Your task to perform on an android device: turn on data saver in the chrome app Image 0: 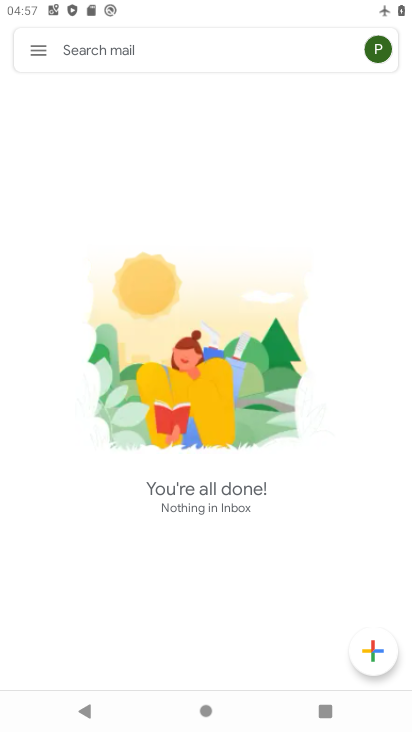
Step 0: press home button
Your task to perform on an android device: turn on data saver in the chrome app Image 1: 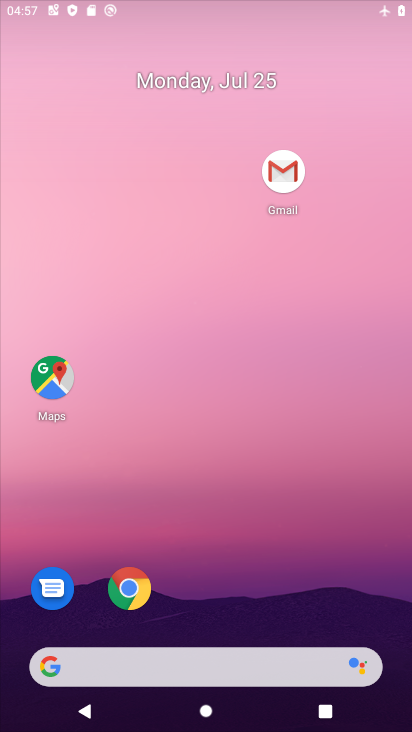
Step 1: drag from (318, 592) to (297, 149)
Your task to perform on an android device: turn on data saver in the chrome app Image 2: 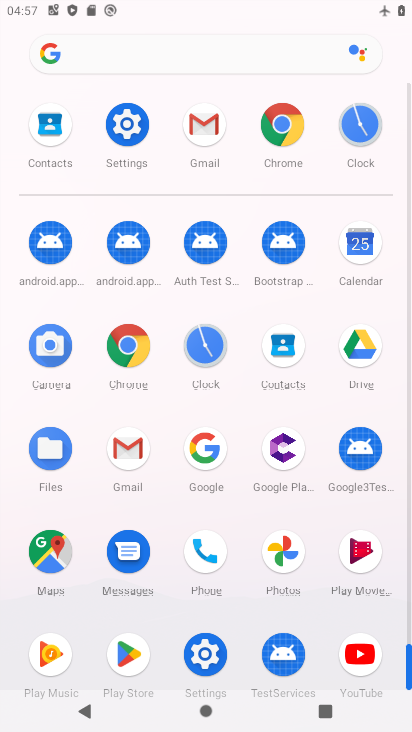
Step 2: click (283, 124)
Your task to perform on an android device: turn on data saver in the chrome app Image 3: 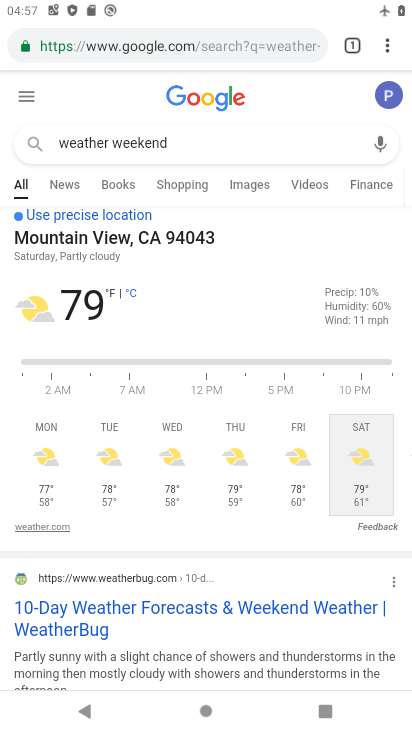
Step 3: drag from (393, 43) to (223, 510)
Your task to perform on an android device: turn on data saver in the chrome app Image 4: 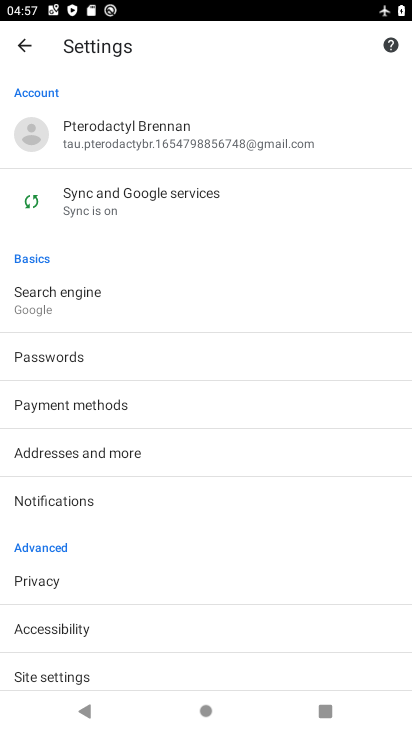
Step 4: drag from (226, 560) to (315, 87)
Your task to perform on an android device: turn on data saver in the chrome app Image 5: 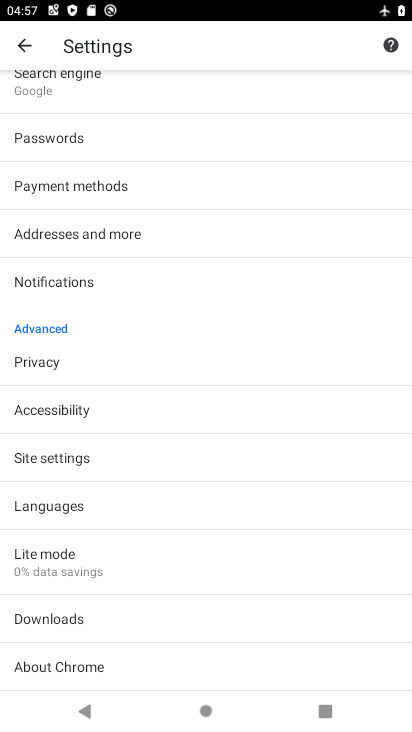
Step 5: click (79, 568)
Your task to perform on an android device: turn on data saver in the chrome app Image 6: 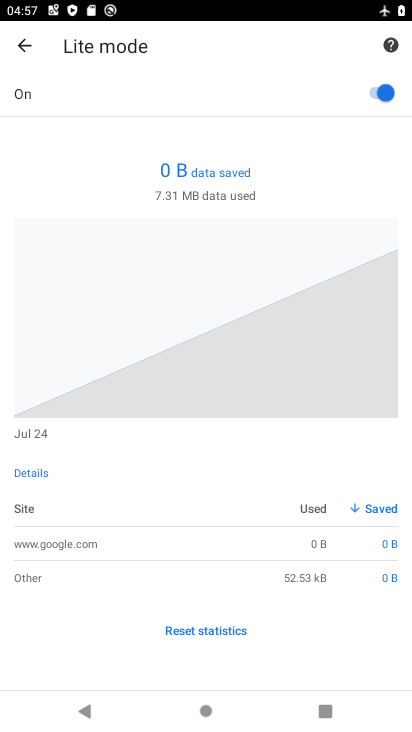
Step 6: task complete